Your task to perform on an android device: create a new album in the google photos Image 0: 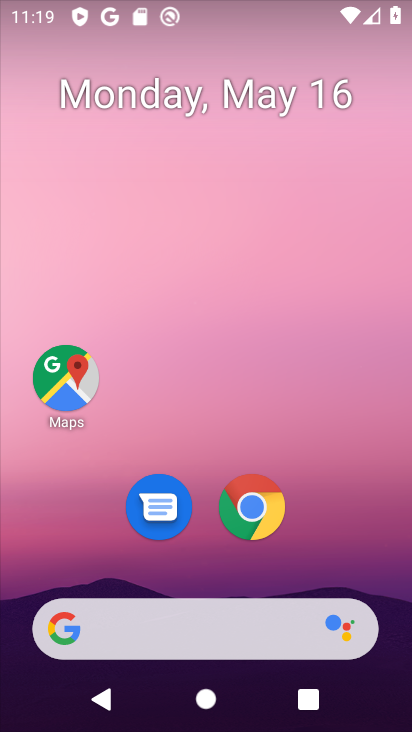
Step 0: drag from (85, 595) to (215, 187)
Your task to perform on an android device: create a new album in the google photos Image 1: 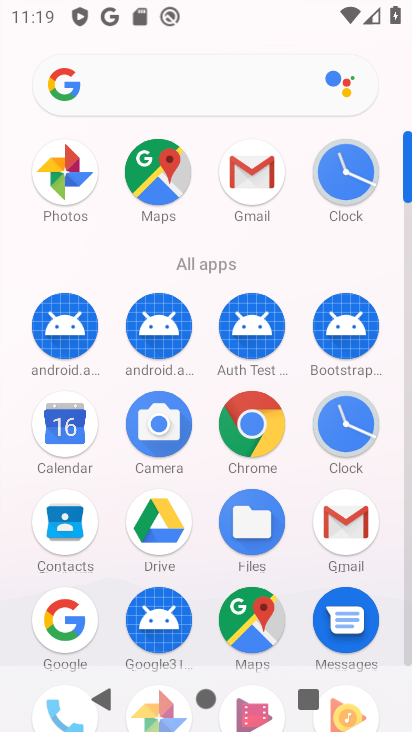
Step 1: drag from (117, 681) to (209, 379)
Your task to perform on an android device: create a new album in the google photos Image 2: 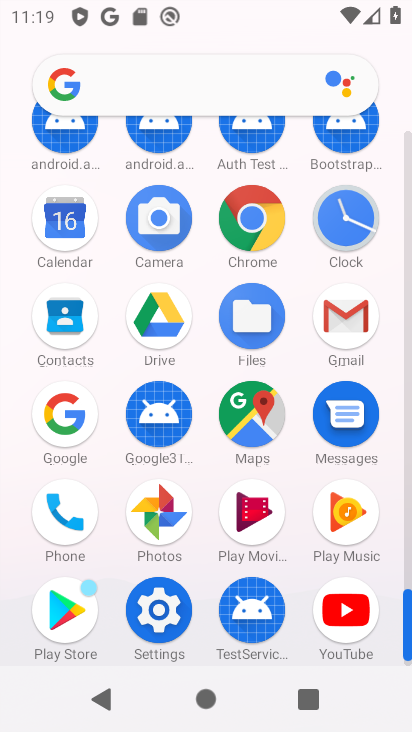
Step 2: click (185, 525)
Your task to perform on an android device: create a new album in the google photos Image 3: 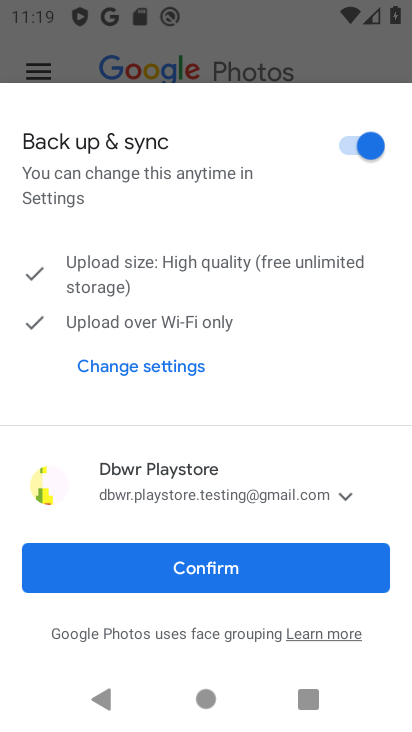
Step 3: click (215, 574)
Your task to perform on an android device: create a new album in the google photos Image 4: 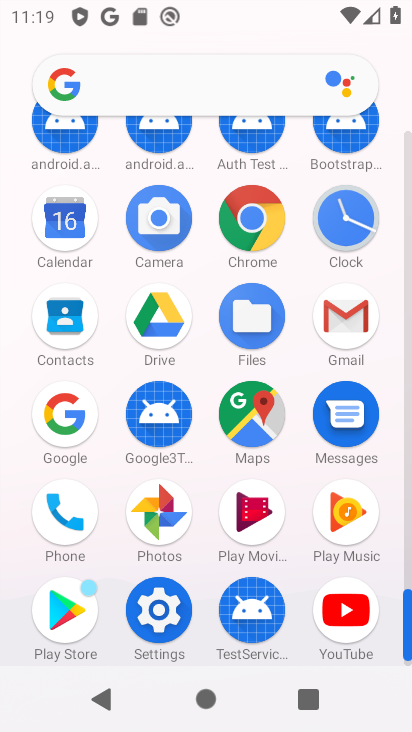
Step 4: click (177, 535)
Your task to perform on an android device: create a new album in the google photos Image 5: 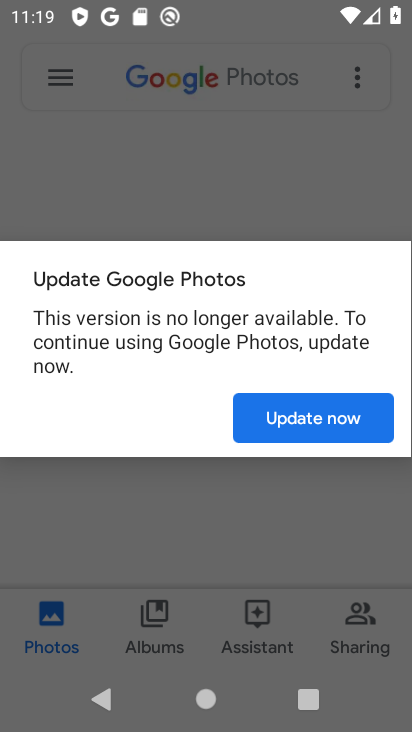
Step 5: click (329, 436)
Your task to perform on an android device: create a new album in the google photos Image 6: 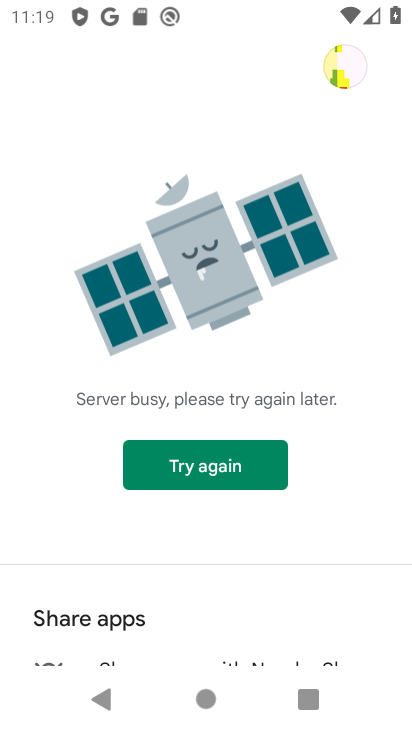
Step 6: task complete